Your task to perform on an android device: Open Google Chrome and click the shortcut for Amazon.com Image 0: 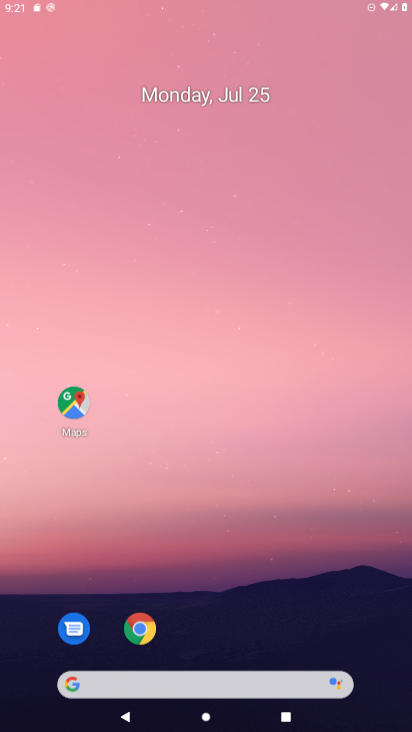
Step 0: click (249, 391)
Your task to perform on an android device: Open Google Chrome and click the shortcut for Amazon.com Image 1: 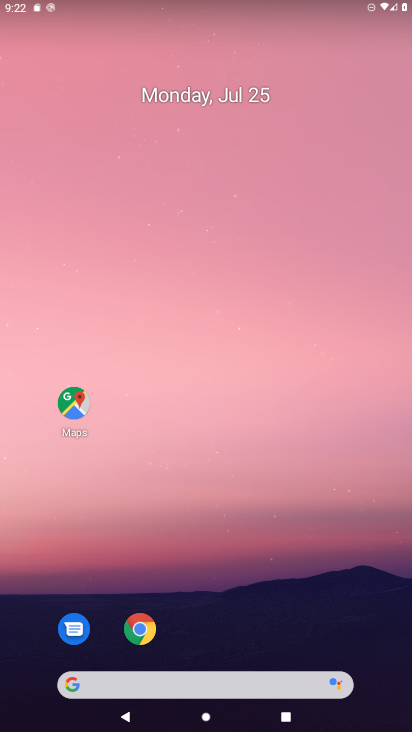
Step 1: click (144, 631)
Your task to perform on an android device: Open Google Chrome and click the shortcut for Amazon.com Image 2: 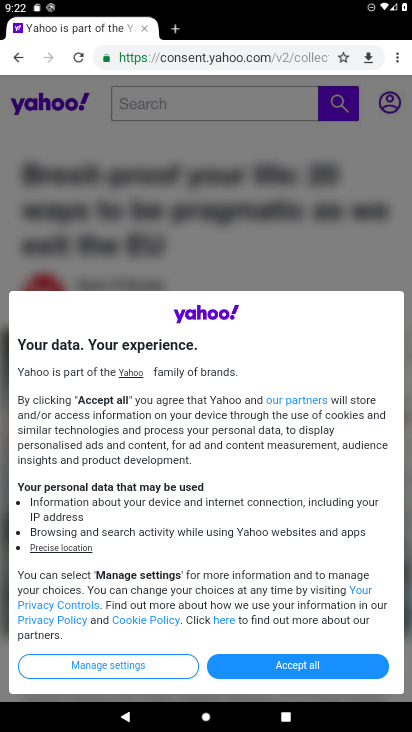
Step 2: click (138, 25)
Your task to perform on an android device: Open Google Chrome and click the shortcut for Amazon.com Image 3: 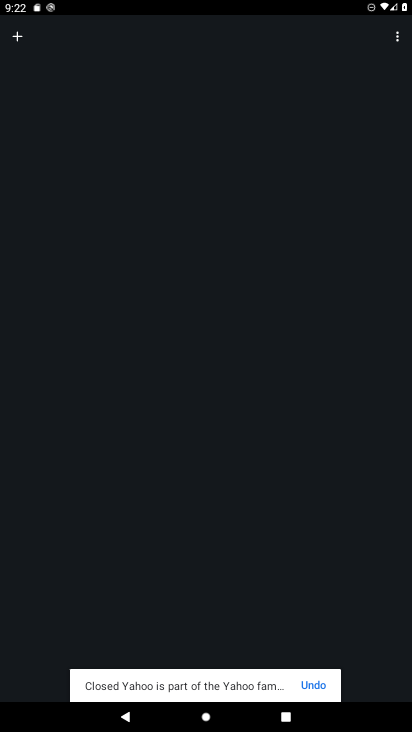
Step 3: click (20, 40)
Your task to perform on an android device: Open Google Chrome and click the shortcut for Amazon.com Image 4: 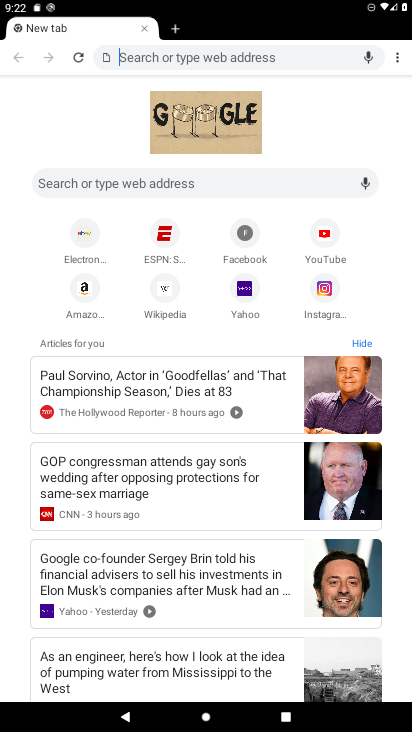
Step 4: click (84, 291)
Your task to perform on an android device: Open Google Chrome and click the shortcut for Amazon.com Image 5: 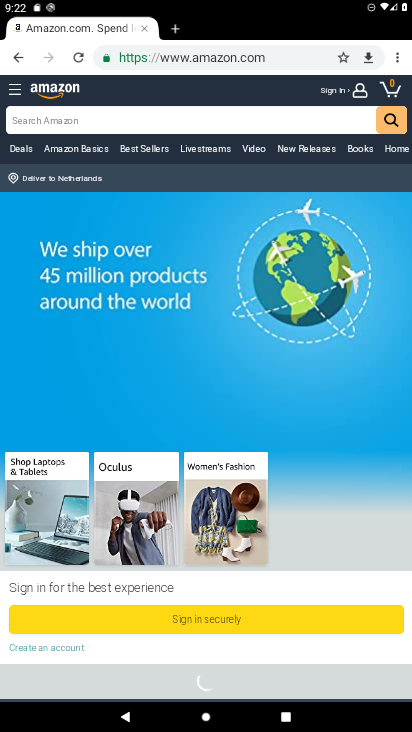
Step 5: task complete